Your task to perform on an android device: Go to network settings Image 0: 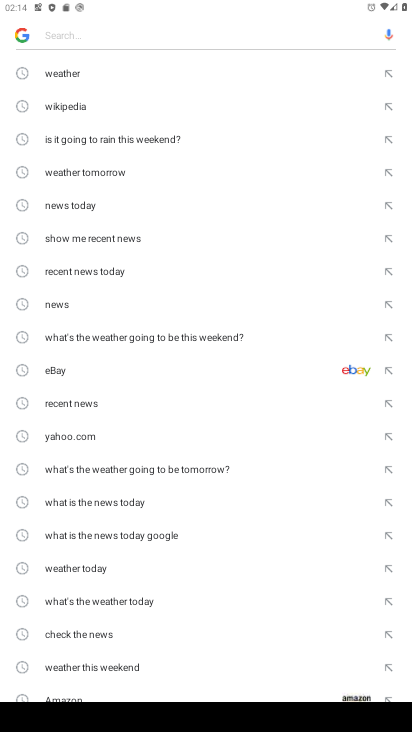
Step 0: press home button
Your task to perform on an android device: Go to network settings Image 1: 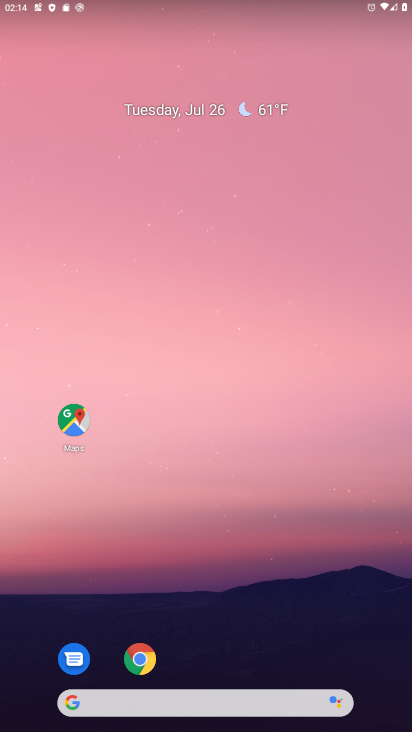
Step 1: drag from (266, 616) to (264, 50)
Your task to perform on an android device: Go to network settings Image 2: 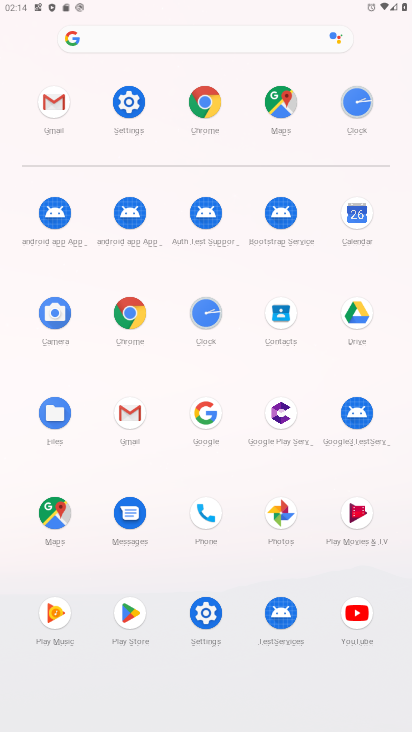
Step 2: click (131, 100)
Your task to perform on an android device: Go to network settings Image 3: 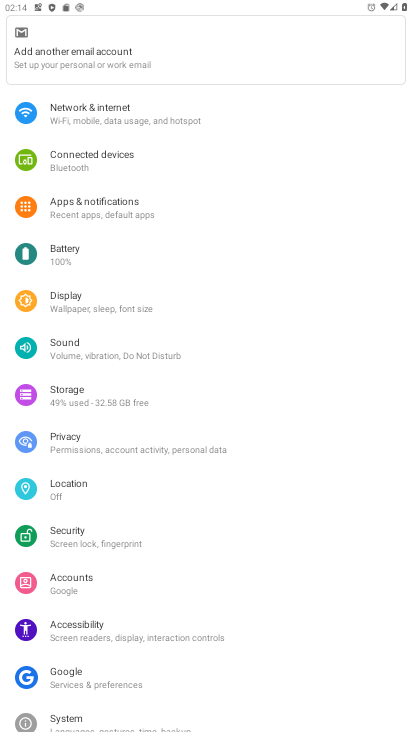
Step 3: click (105, 115)
Your task to perform on an android device: Go to network settings Image 4: 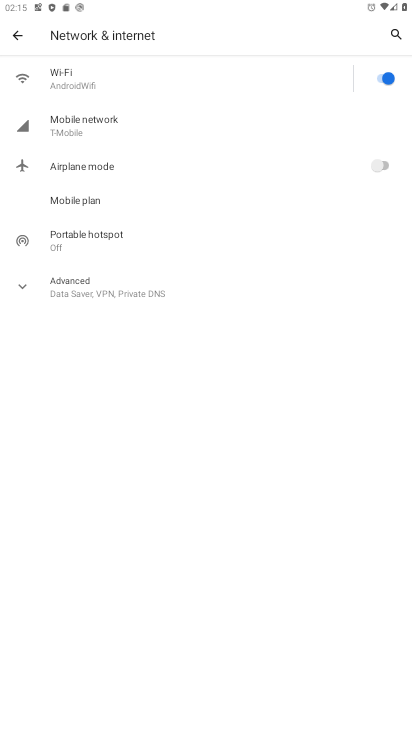
Step 4: task complete